Your task to perform on an android device: Go to Yahoo.com Image 0: 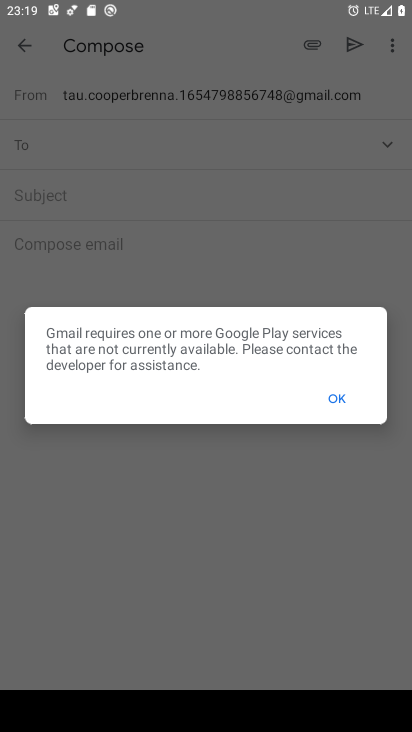
Step 0: press home button
Your task to perform on an android device: Go to Yahoo.com Image 1: 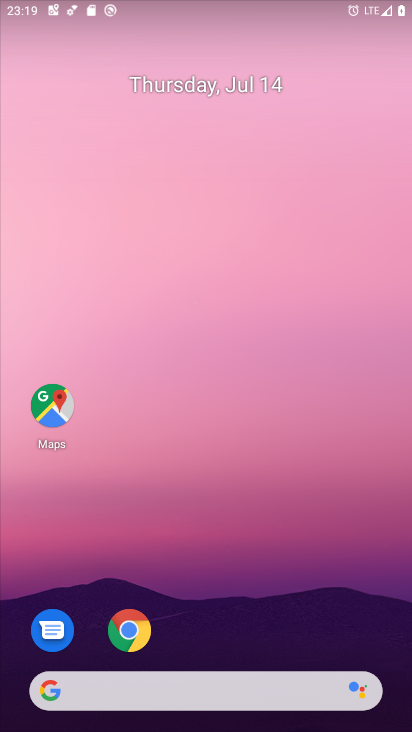
Step 1: drag from (183, 565) to (174, 153)
Your task to perform on an android device: Go to Yahoo.com Image 2: 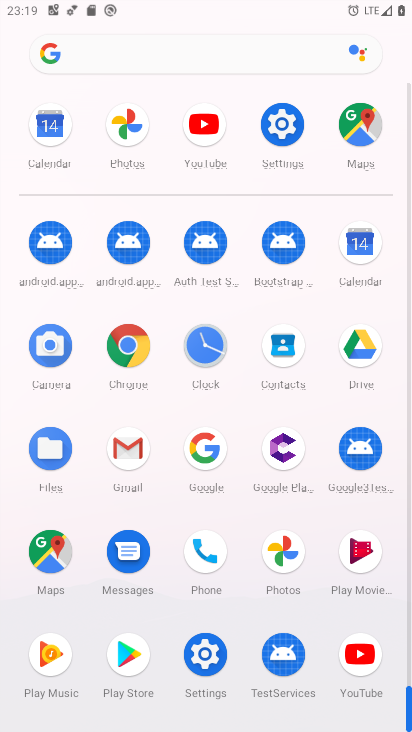
Step 2: click (160, 60)
Your task to perform on an android device: Go to Yahoo.com Image 3: 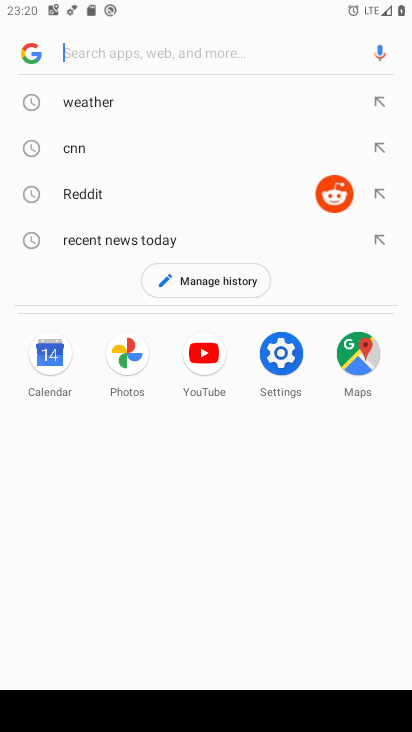
Step 3: type "yahoo.com"
Your task to perform on an android device: Go to Yahoo.com Image 4: 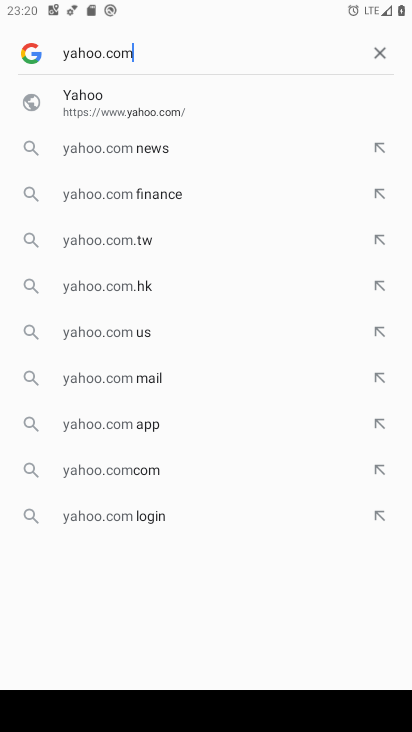
Step 4: click (65, 96)
Your task to perform on an android device: Go to Yahoo.com Image 5: 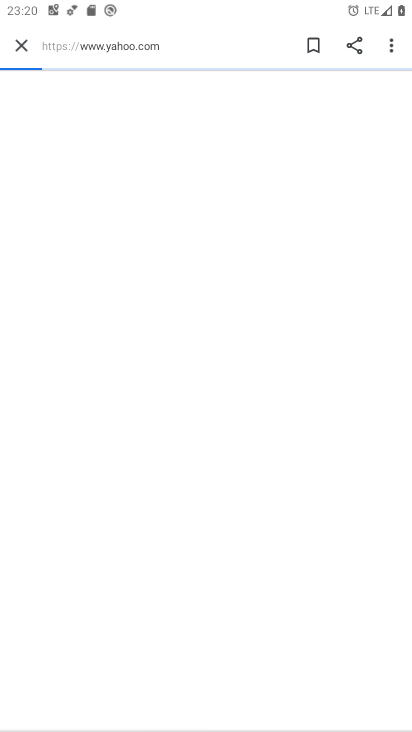
Step 5: task complete